Your task to perform on an android device: toggle javascript in the chrome app Image 0: 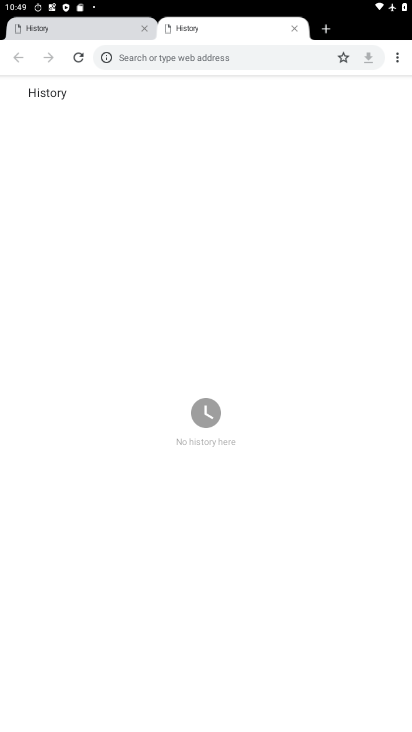
Step 0: press home button
Your task to perform on an android device: toggle javascript in the chrome app Image 1: 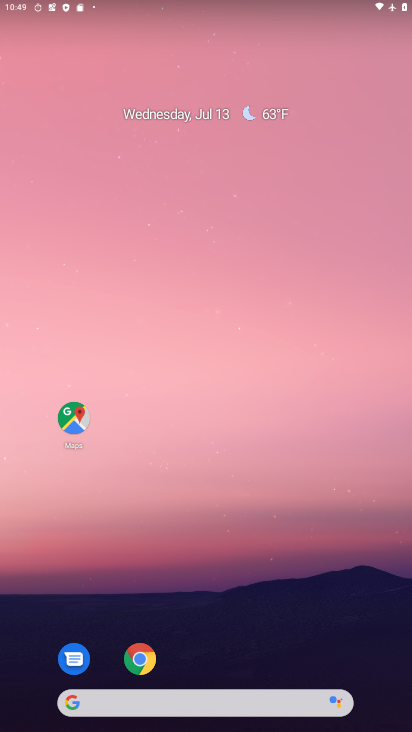
Step 1: drag from (272, 518) to (249, 110)
Your task to perform on an android device: toggle javascript in the chrome app Image 2: 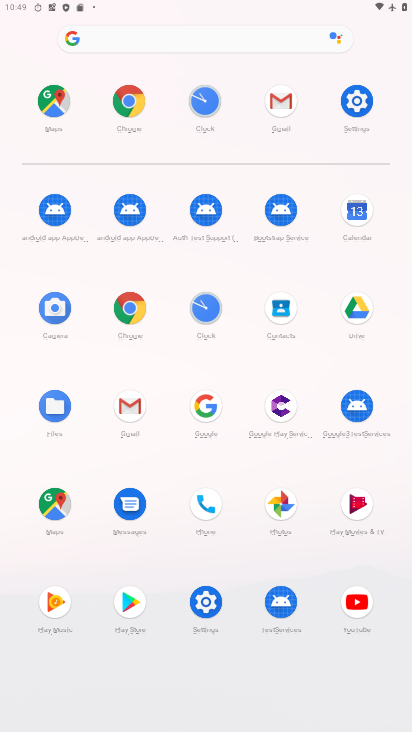
Step 2: click (135, 306)
Your task to perform on an android device: toggle javascript in the chrome app Image 3: 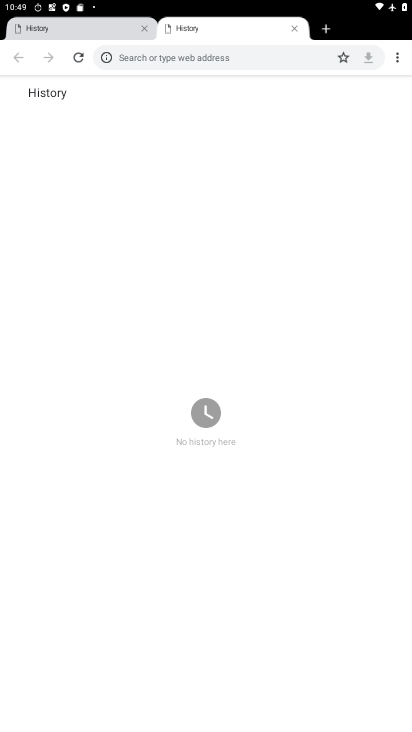
Step 3: drag from (400, 53) to (292, 267)
Your task to perform on an android device: toggle javascript in the chrome app Image 4: 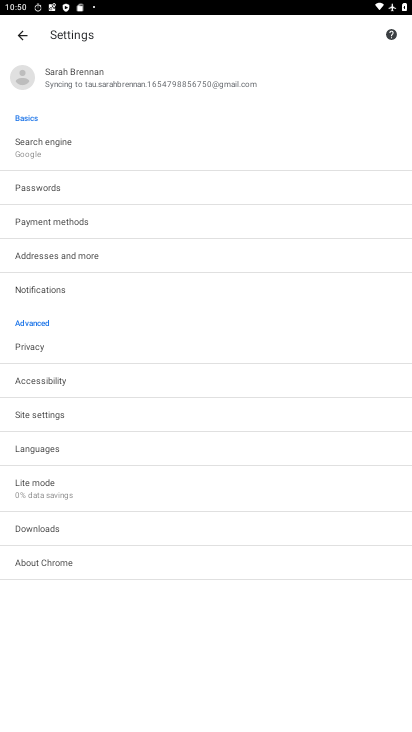
Step 4: click (88, 415)
Your task to perform on an android device: toggle javascript in the chrome app Image 5: 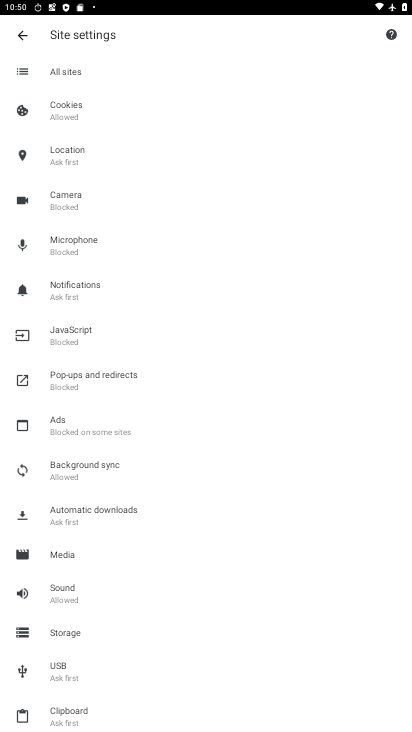
Step 5: click (104, 340)
Your task to perform on an android device: toggle javascript in the chrome app Image 6: 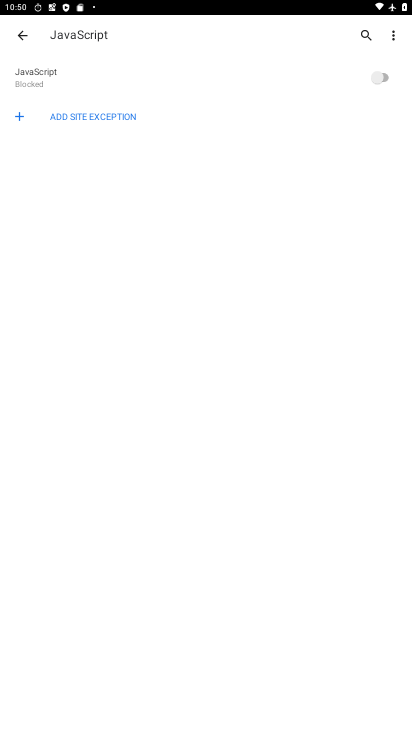
Step 6: click (386, 79)
Your task to perform on an android device: toggle javascript in the chrome app Image 7: 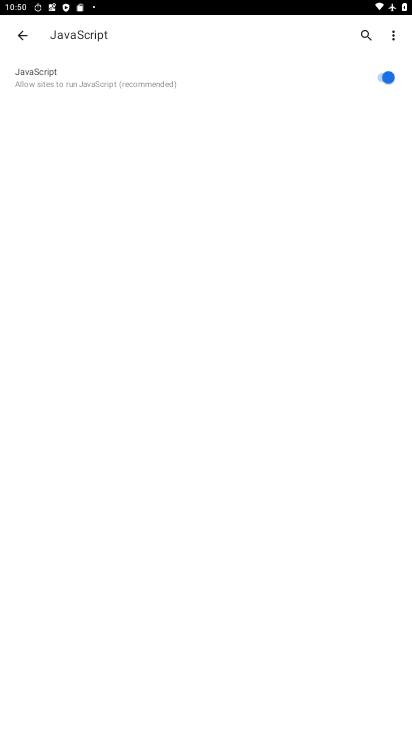
Step 7: task complete